Your task to perform on an android device: Search for Italian restaurants on Maps Image 0: 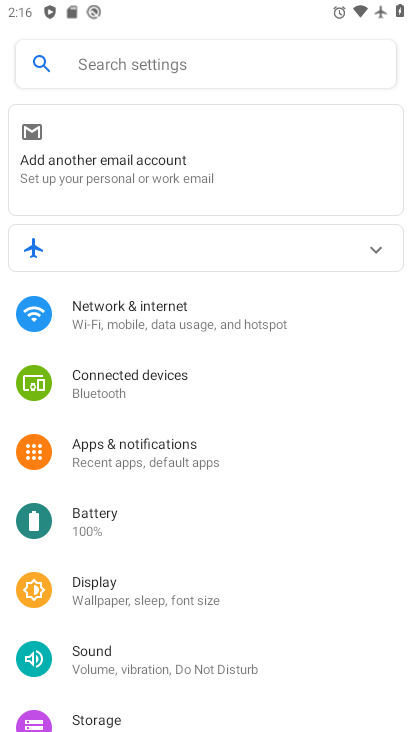
Step 0: press back button
Your task to perform on an android device: Search for Italian restaurants on Maps Image 1: 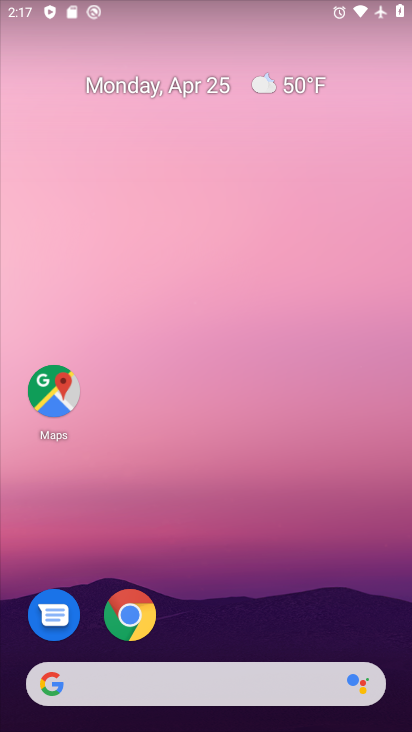
Step 1: click (55, 392)
Your task to perform on an android device: Search for Italian restaurants on Maps Image 2: 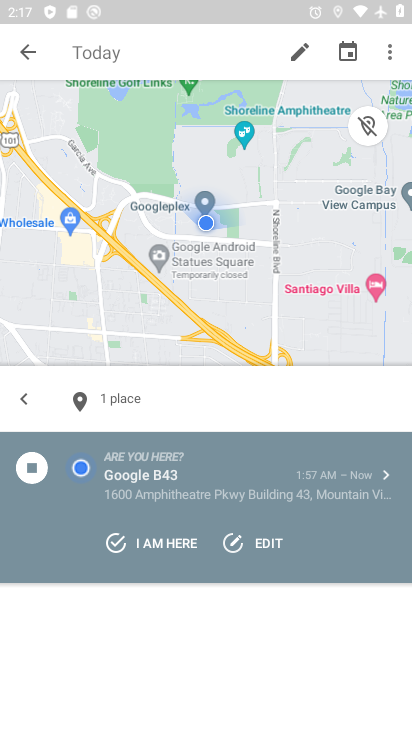
Step 2: press back button
Your task to perform on an android device: Search for Italian restaurants on Maps Image 3: 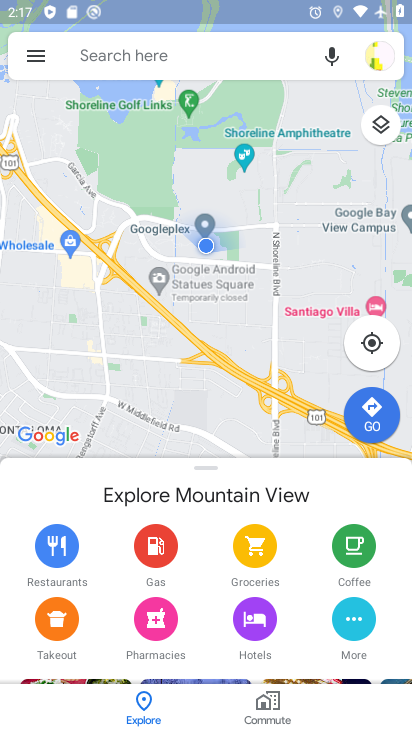
Step 3: click (247, 70)
Your task to perform on an android device: Search for Italian restaurants on Maps Image 4: 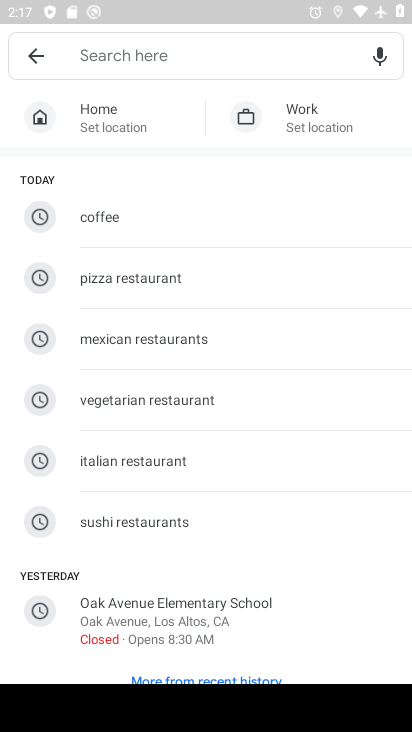
Step 4: type "Italian restaurants"
Your task to perform on an android device: Search for Italian restaurants on Maps Image 5: 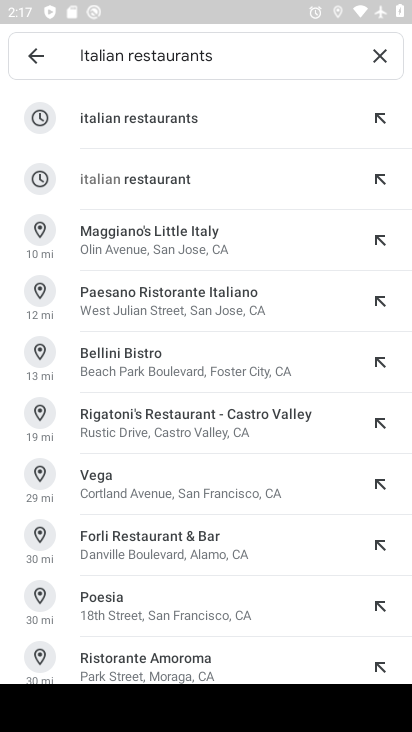
Step 5: click (115, 117)
Your task to perform on an android device: Search for Italian restaurants on Maps Image 6: 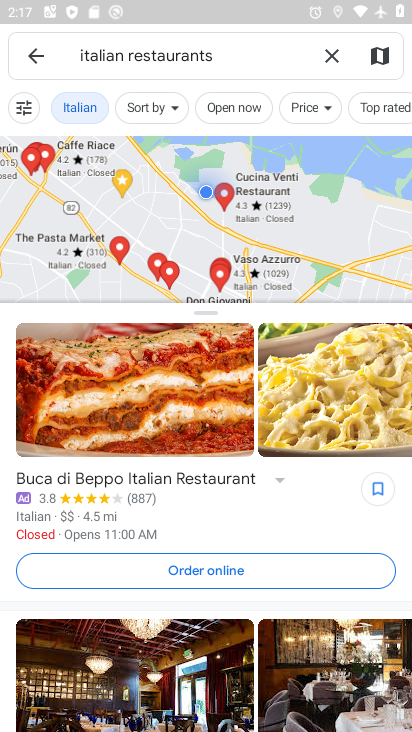
Step 6: task complete